Your task to perform on an android device: turn on javascript in the chrome app Image 0: 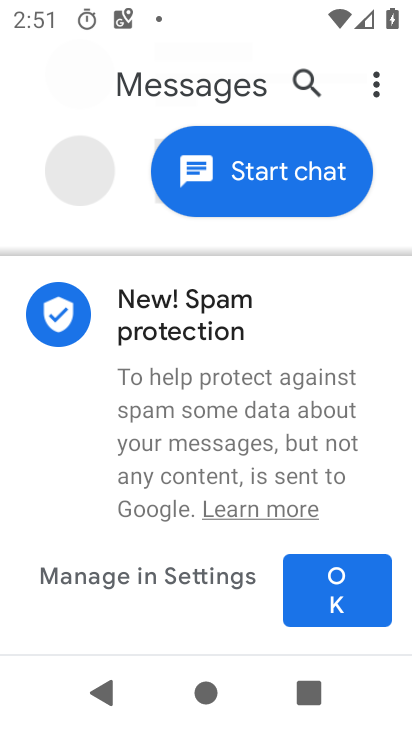
Step 0: press home button
Your task to perform on an android device: turn on javascript in the chrome app Image 1: 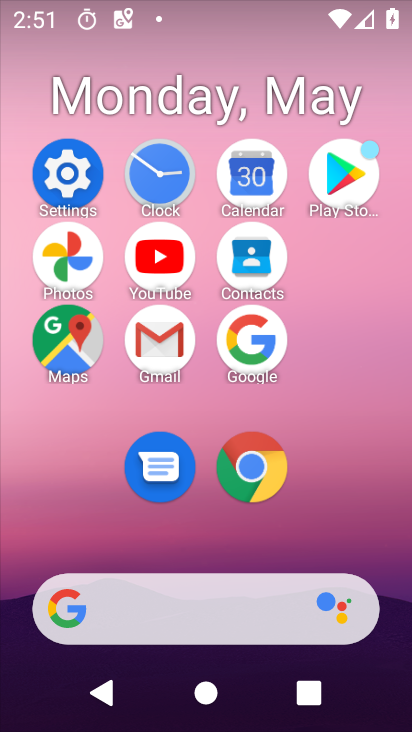
Step 1: click (285, 465)
Your task to perform on an android device: turn on javascript in the chrome app Image 2: 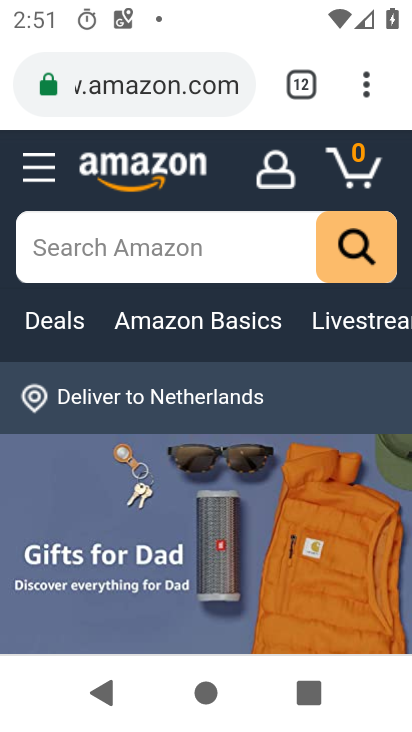
Step 2: click (371, 85)
Your task to perform on an android device: turn on javascript in the chrome app Image 3: 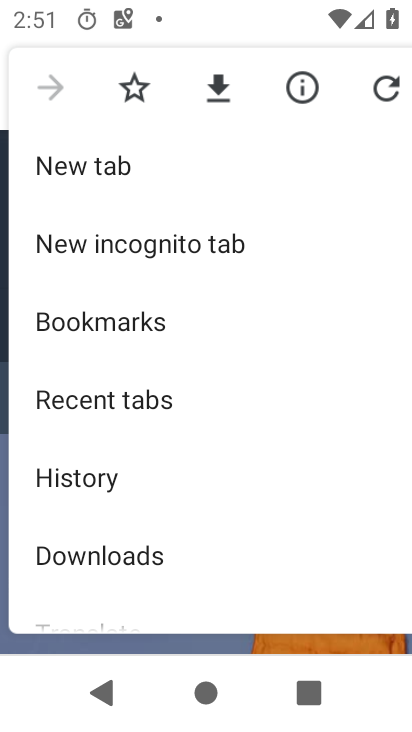
Step 3: drag from (155, 504) to (208, 146)
Your task to perform on an android device: turn on javascript in the chrome app Image 4: 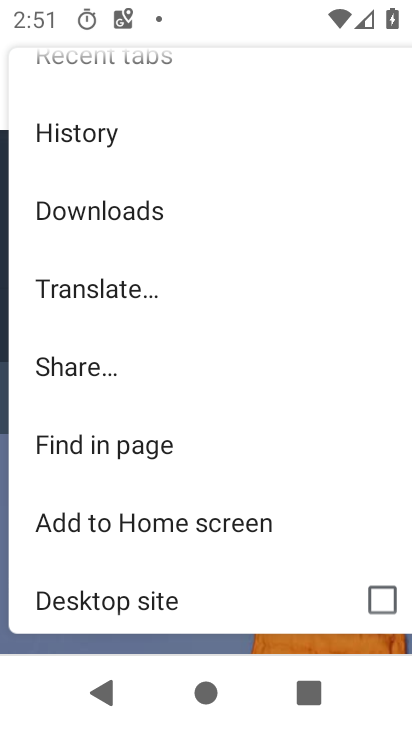
Step 4: drag from (187, 440) to (221, 179)
Your task to perform on an android device: turn on javascript in the chrome app Image 5: 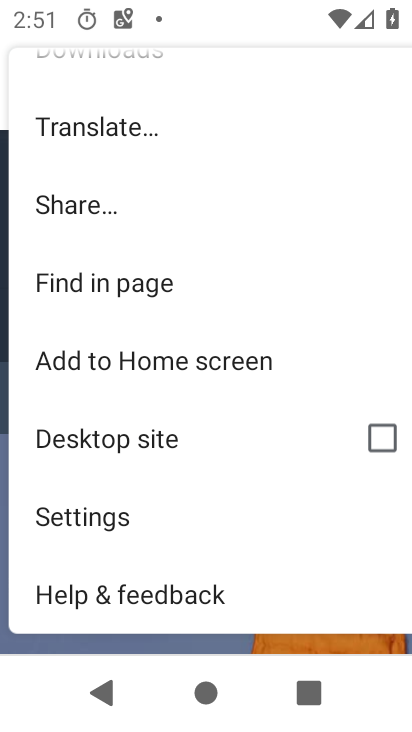
Step 5: click (147, 529)
Your task to perform on an android device: turn on javascript in the chrome app Image 6: 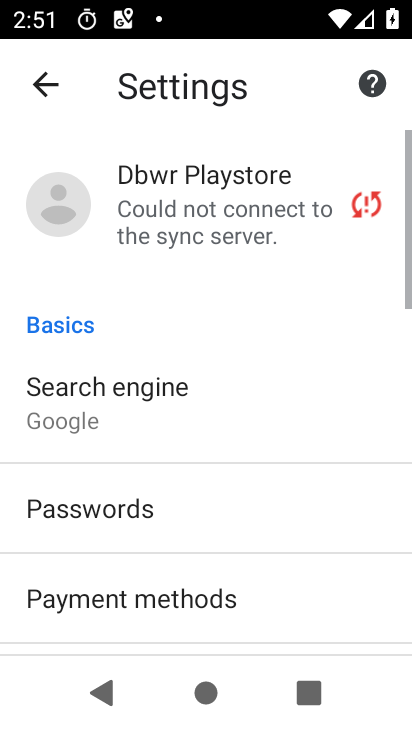
Step 6: drag from (152, 487) to (180, 167)
Your task to perform on an android device: turn on javascript in the chrome app Image 7: 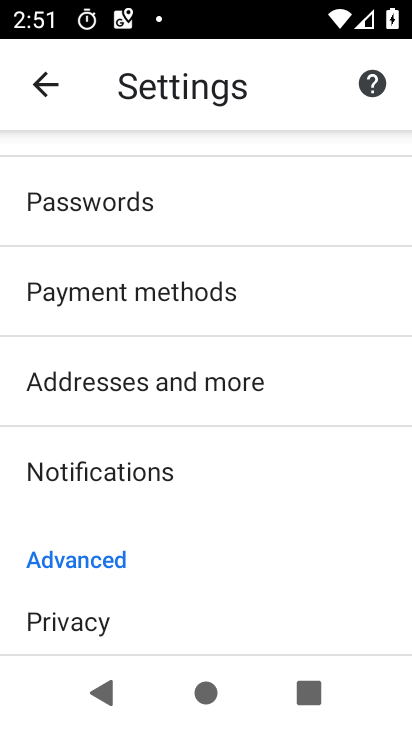
Step 7: drag from (209, 551) to (200, 164)
Your task to perform on an android device: turn on javascript in the chrome app Image 8: 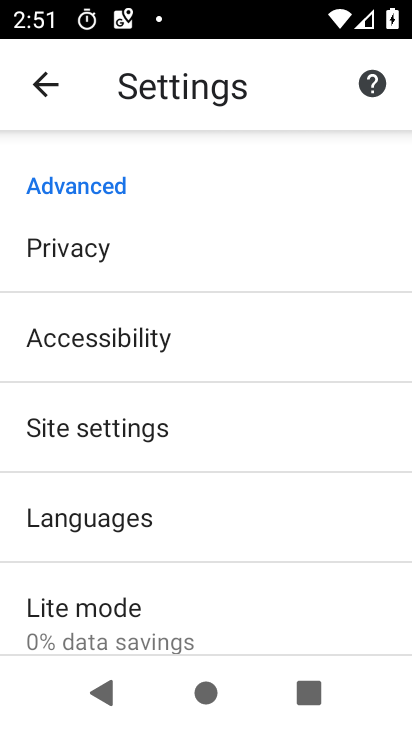
Step 8: click (204, 426)
Your task to perform on an android device: turn on javascript in the chrome app Image 9: 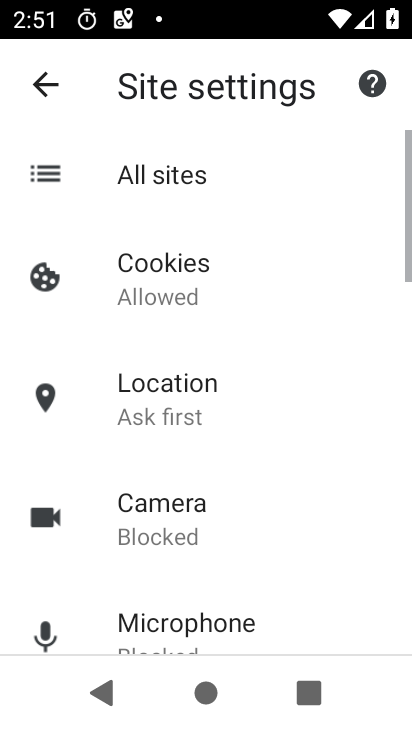
Step 9: drag from (190, 588) to (167, 234)
Your task to perform on an android device: turn on javascript in the chrome app Image 10: 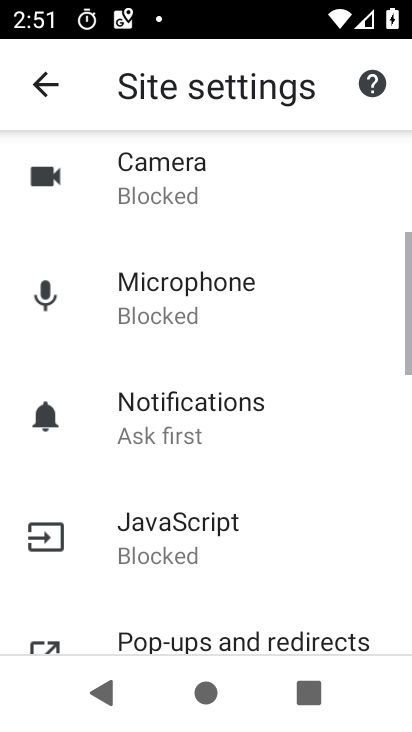
Step 10: drag from (199, 565) to (209, 244)
Your task to perform on an android device: turn on javascript in the chrome app Image 11: 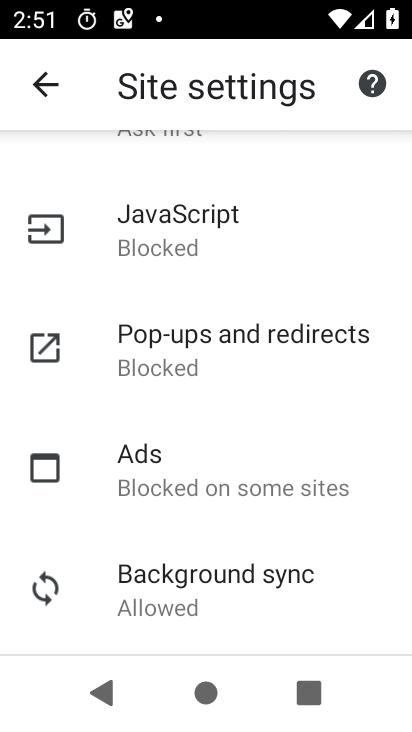
Step 11: click (213, 232)
Your task to perform on an android device: turn on javascript in the chrome app Image 12: 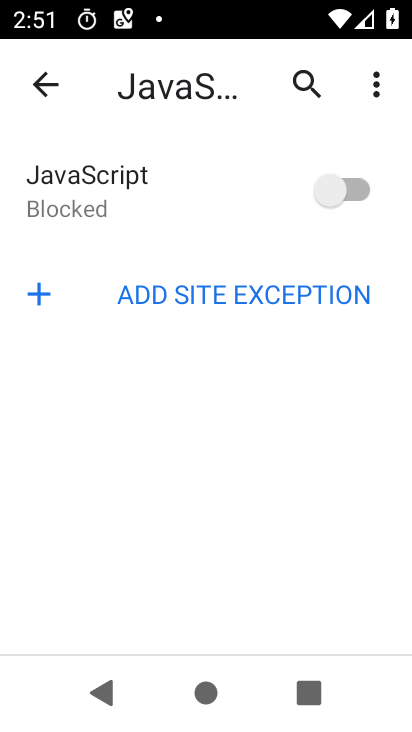
Step 12: click (341, 195)
Your task to perform on an android device: turn on javascript in the chrome app Image 13: 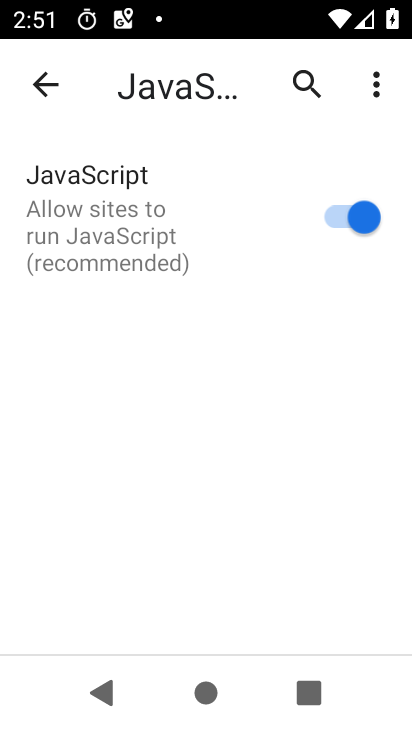
Step 13: task complete